Your task to perform on an android device: set an alarm Image 0: 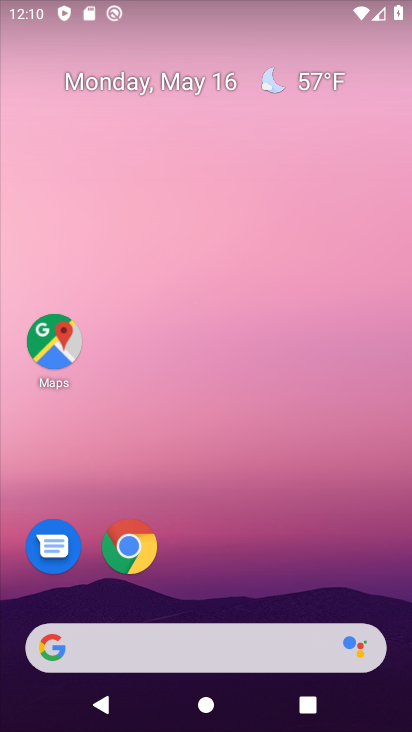
Step 0: drag from (276, 554) to (303, 103)
Your task to perform on an android device: set an alarm Image 1: 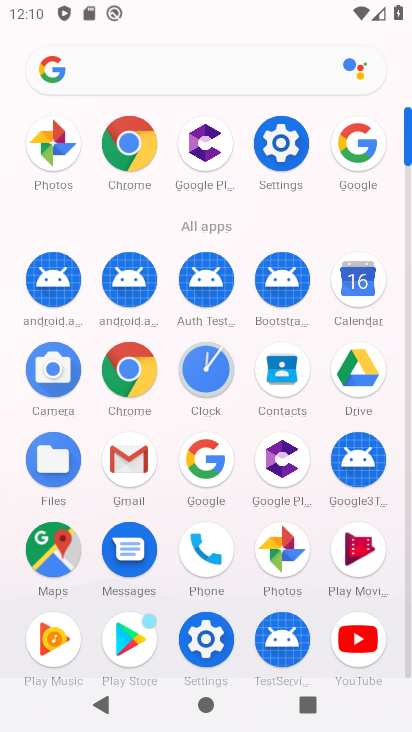
Step 1: click (202, 377)
Your task to perform on an android device: set an alarm Image 2: 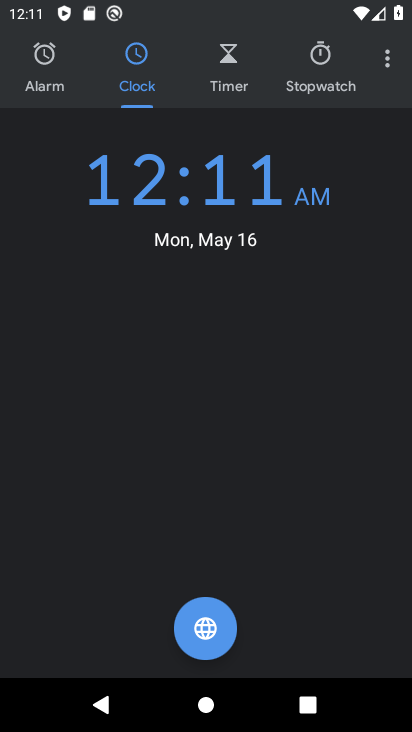
Step 2: click (56, 84)
Your task to perform on an android device: set an alarm Image 3: 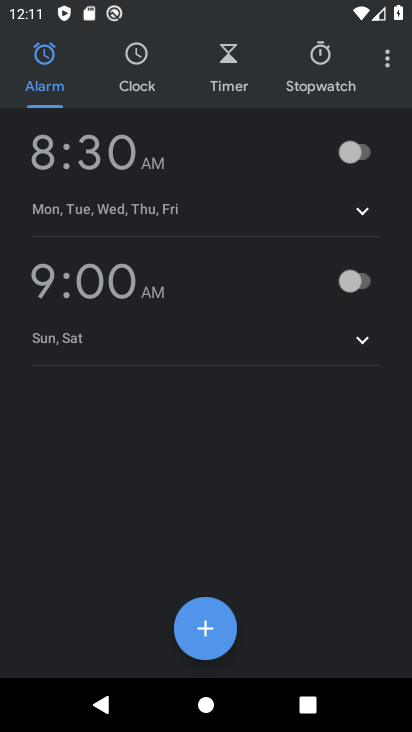
Step 3: click (206, 627)
Your task to perform on an android device: set an alarm Image 4: 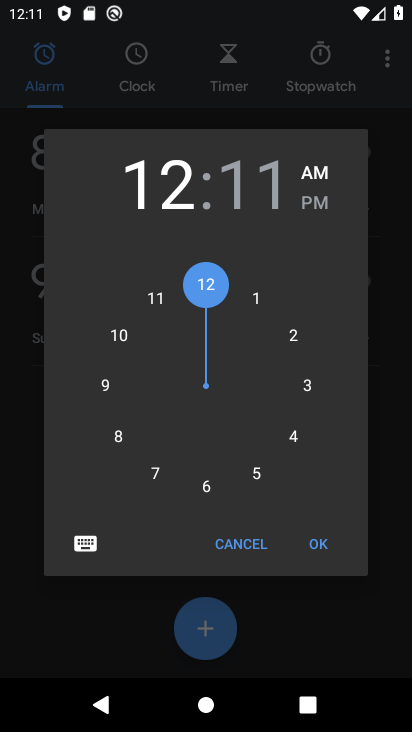
Step 4: click (324, 545)
Your task to perform on an android device: set an alarm Image 5: 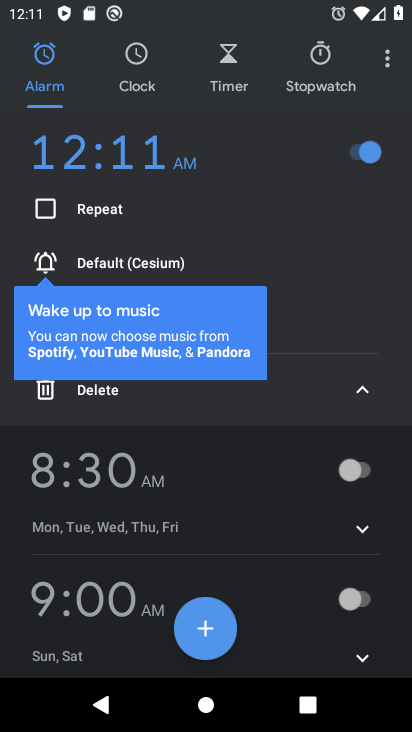
Step 5: task complete